Your task to perform on an android device: turn off sleep mode Image 0: 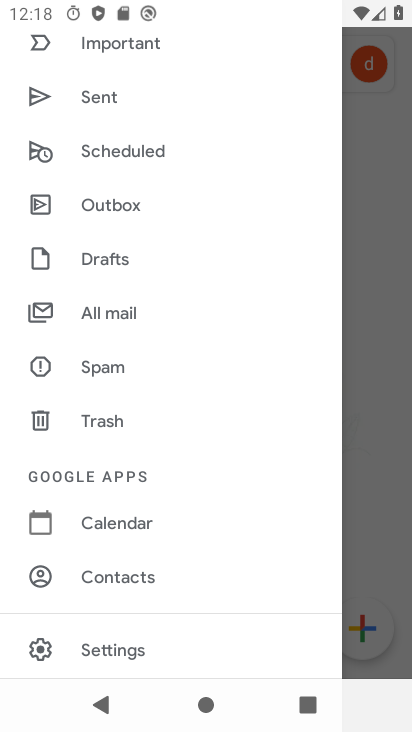
Step 0: press home button
Your task to perform on an android device: turn off sleep mode Image 1: 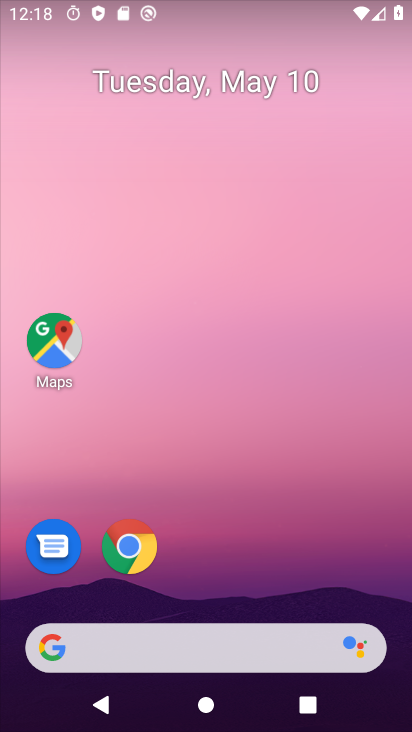
Step 1: drag from (314, 587) to (288, 237)
Your task to perform on an android device: turn off sleep mode Image 2: 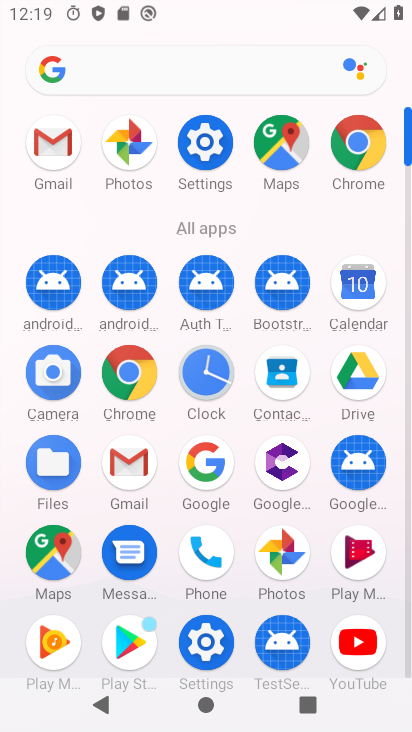
Step 2: click (194, 158)
Your task to perform on an android device: turn off sleep mode Image 3: 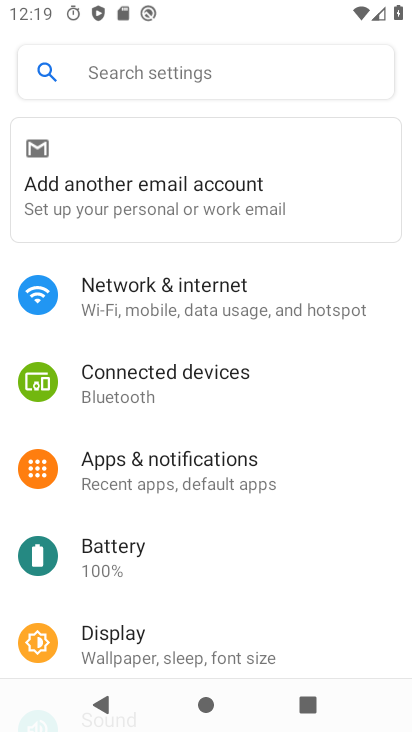
Step 3: drag from (186, 540) to (299, 269)
Your task to perform on an android device: turn off sleep mode Image 4: 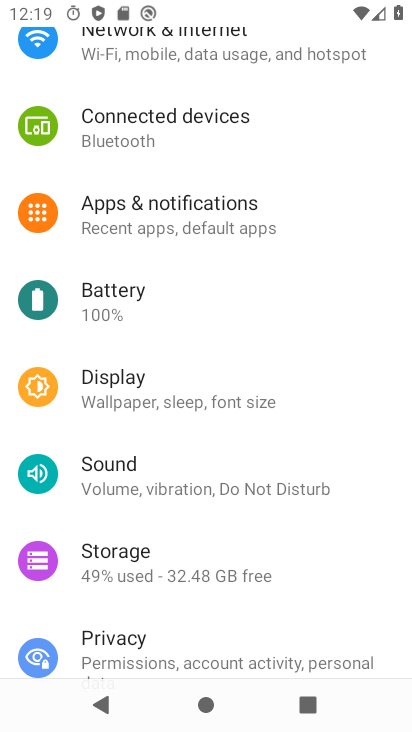
Step 4: click (162, 402)
Your task to perform on an android device: turn off sleep mode Image 5: 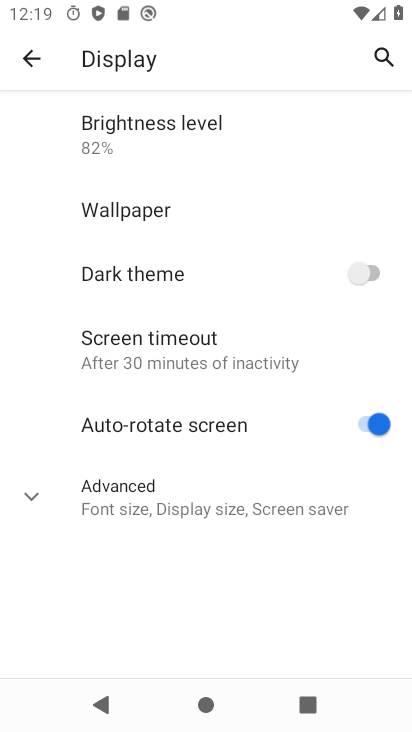
Step 5: task complete